Your task to perform on an android device: see sites visited before in the chrome app Image 0: 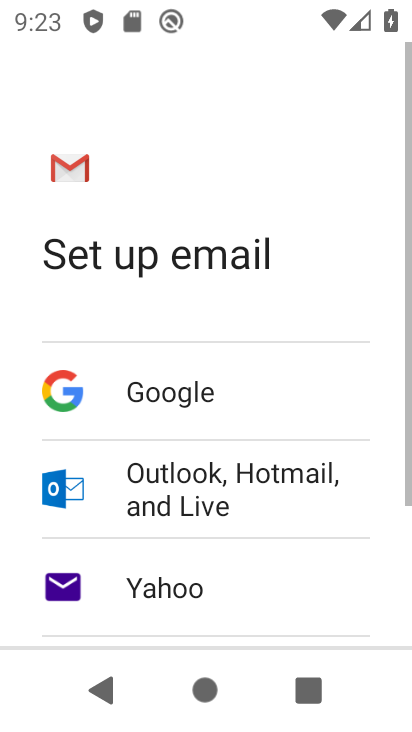
Step 0: drag from (251, 495) to (254, 36)
Your task to perform on an android device: see sites visited before in the chrome app Image 1: 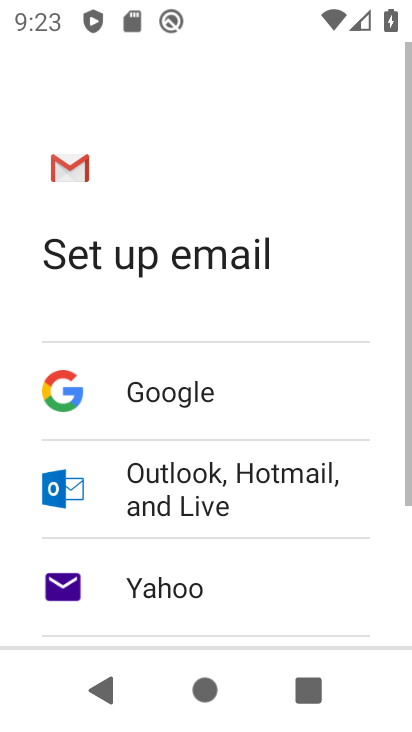
Step 1: press home button
Your task to perform on an android device: see sites visited before in the chrome app Image 2: 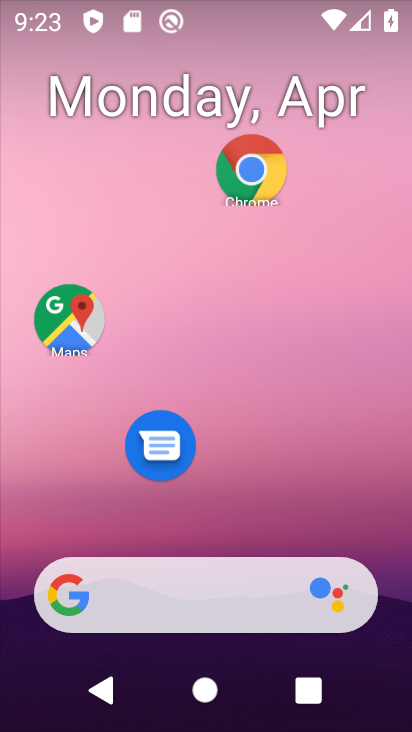
Step 2: drag from (235, 481) to (234, 77)
Your task to perform on an android device: see sites visited before in the chrome app Image 3: 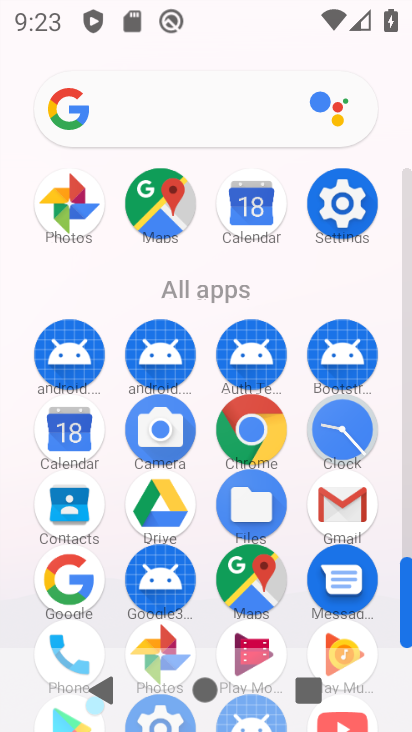
Step 3: click (344, 197)
Your task to perform on an android device: see sites visited before in the chrome app Image 4: 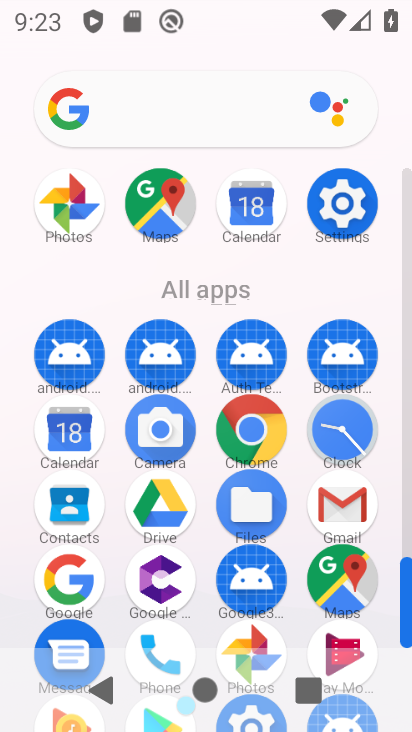
Step 4: click (235, 416)
Your task to perform on an android device: see sites visited before in the chrome app Image 5: 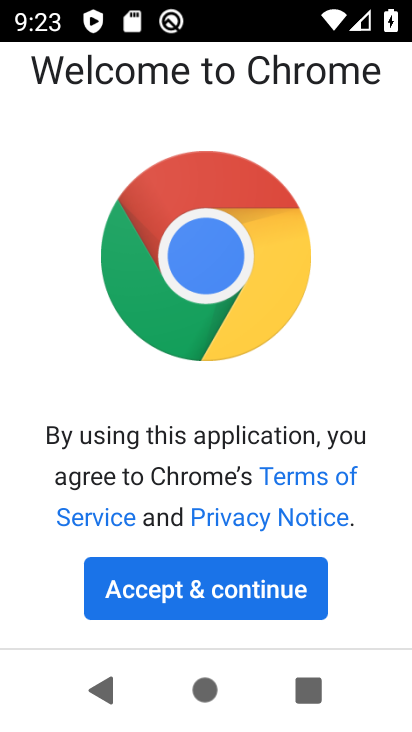
Step 5: click (258, 586)
Your task to perform on an android device: see sites visited before in the chrome app Image 6: 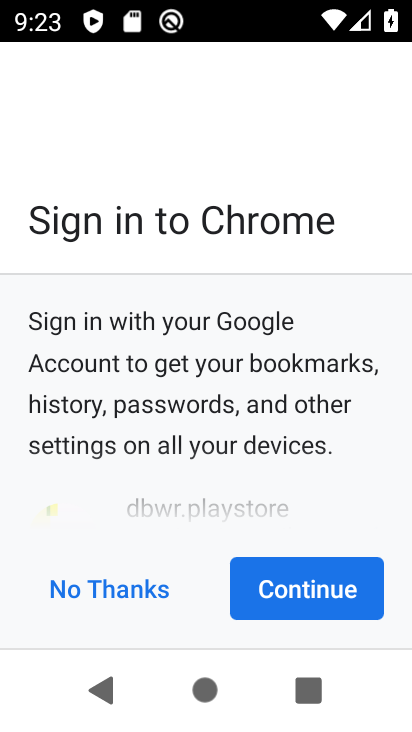
Step 6: click (259, 583)
Your task to perform on an android device: see sites visited before in the chrome app Image 7: 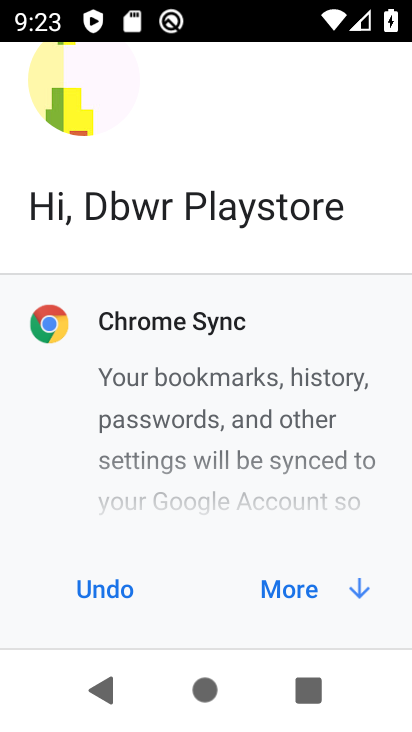
Step 7: click (271, 580)
Your task to perform on an android device: see sites visited before in the chrome app Image 8: 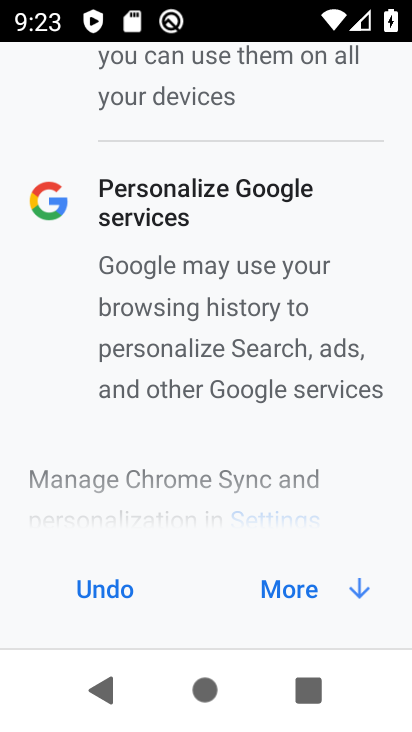
Step 8: click (271, 580)
Your task to perform on an android device: see sites visited before in the chrome app Image 9: 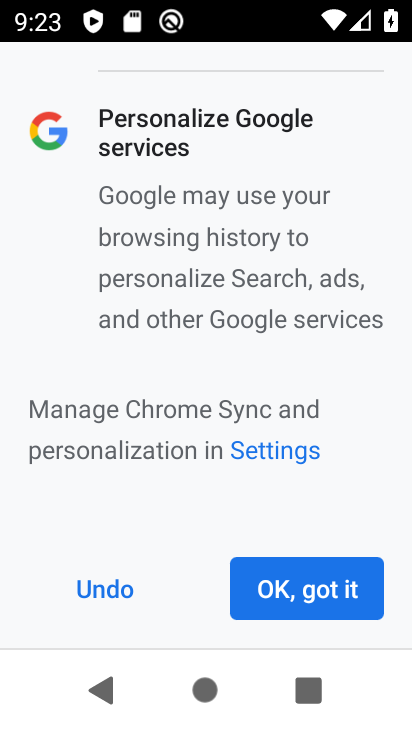
Step 9: click (271, 580)
Your task to perform on an android device: see sites visited before in the chrome app Image 10: 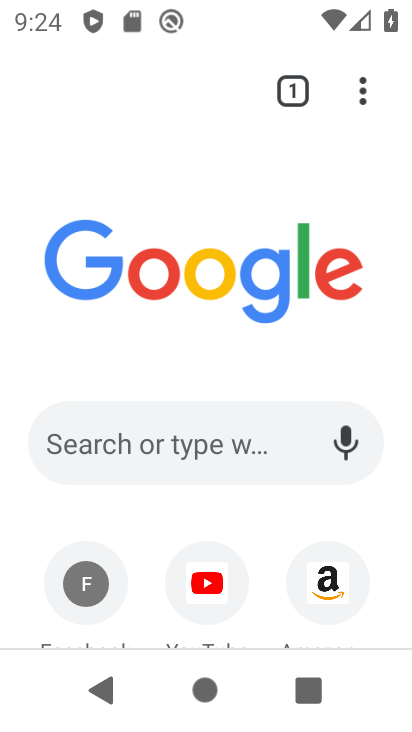
Step 10: click (359, 82)
Your task to perform on an android device: see sites visited before in the chrome app Image 11: 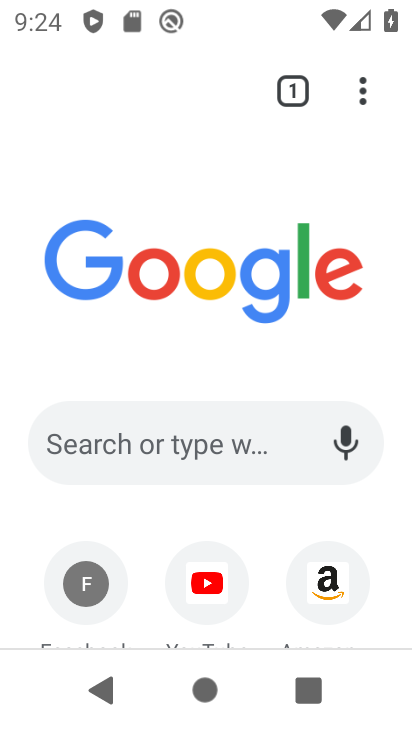
Step 11: click (364, 90)
Your task to perform on an android device: see sites visited before in the chrome app Image 12: 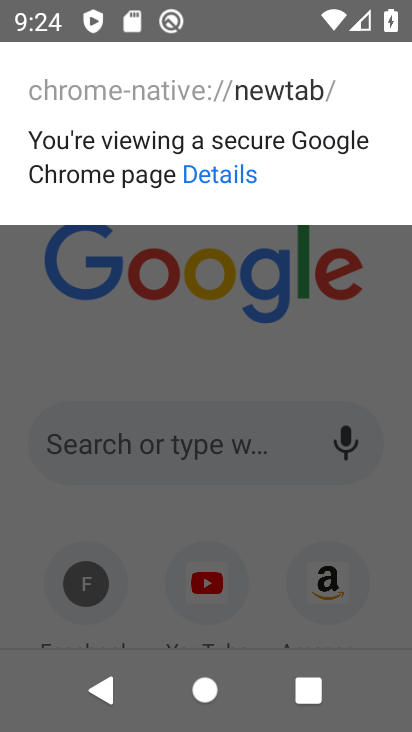
Step 12: click (249, 249)
Your task to perform on an android device: see sites visited before in the chrome app Image 13: 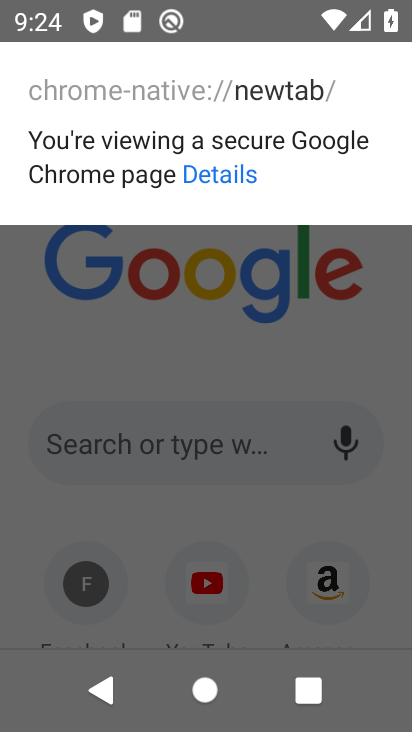
Step 13: click (267, 282)
Your task to perform on an android device: see sites visited before in the chrome app Image 14: 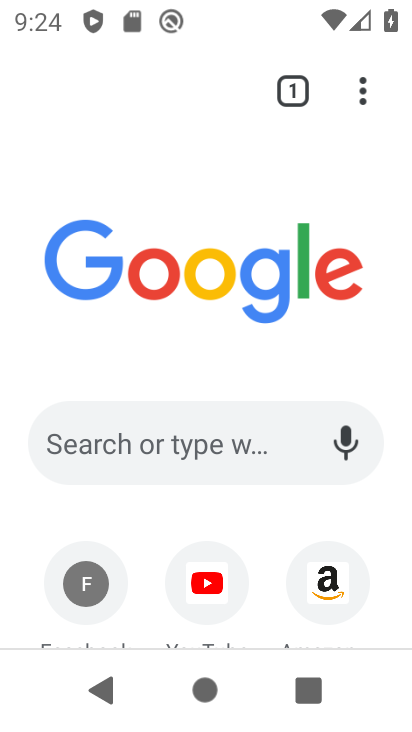
Step 14: click (358, 93)
Your task to perform on an android device: see sites visited before in the chrome app Image 15: 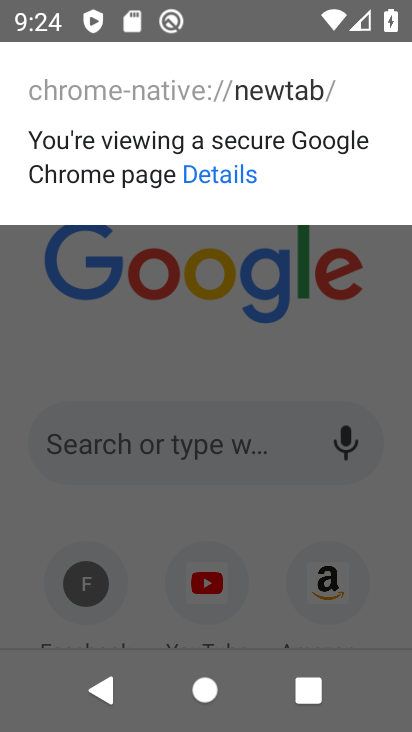
Step 15: click (282, 301)
Your task to perform on an android device: see sites visited before in the chrome app Image 16: 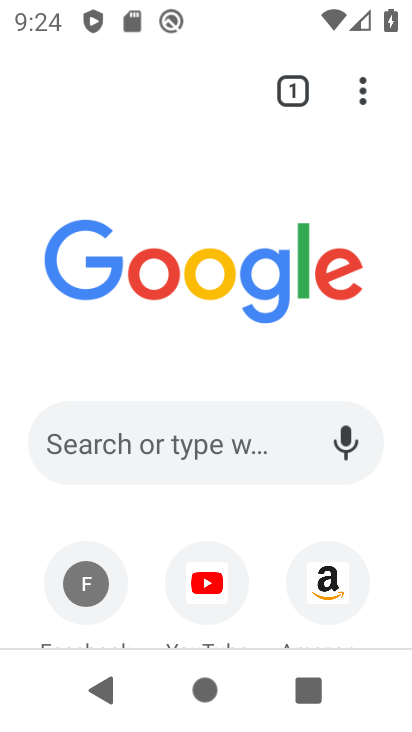
Step 16: task complete